Your task to perform on an android device: Search for macbook pro on target, select the first entry, and add it to the cart. Image 0: 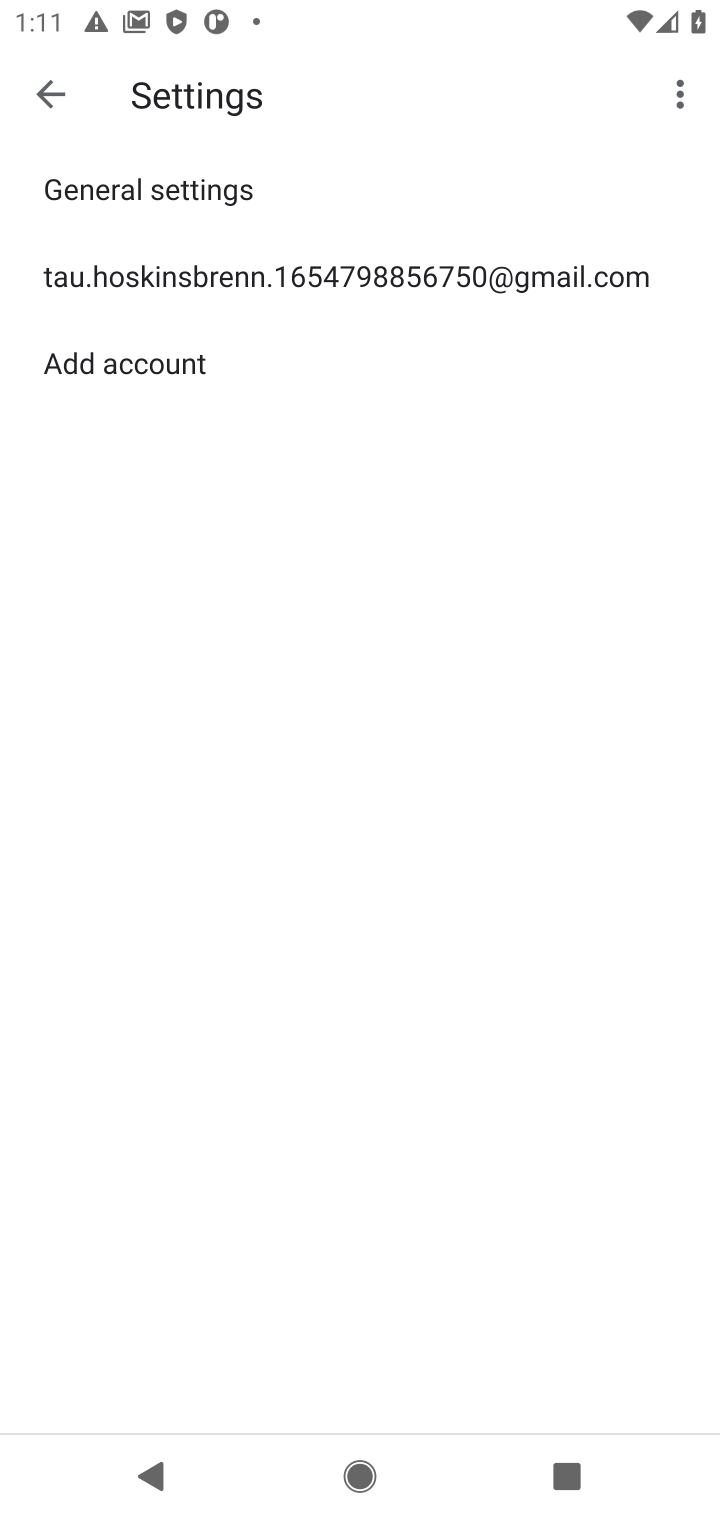
Step 0: press home button
Your task to perform on an android device: Search for macbook pro on target, select the first entry, and add it to the cart. Image 1: 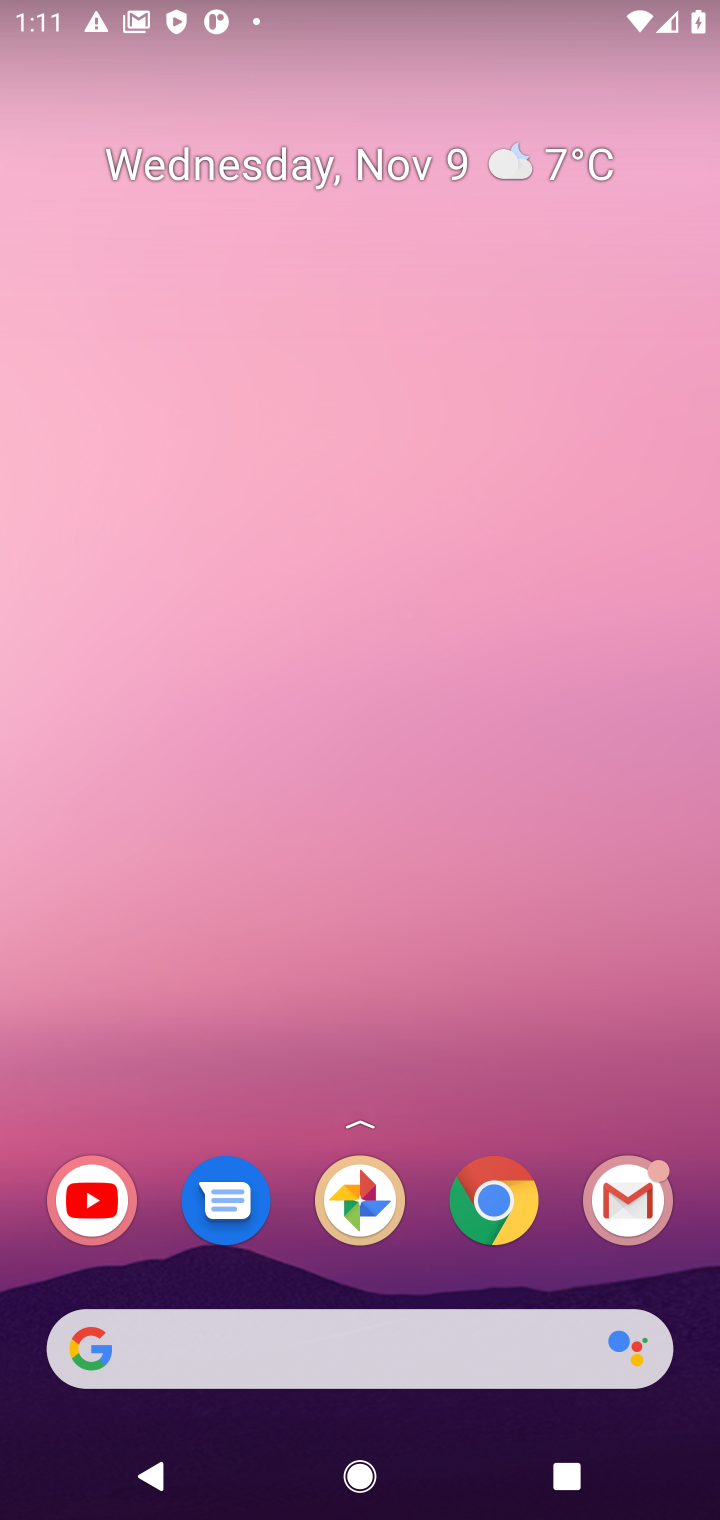
Step 1: click (273, 1333)
Your task to perform on an android device: Search for macbook pro on target, select the first entry, and add it to the cart. Image 2: 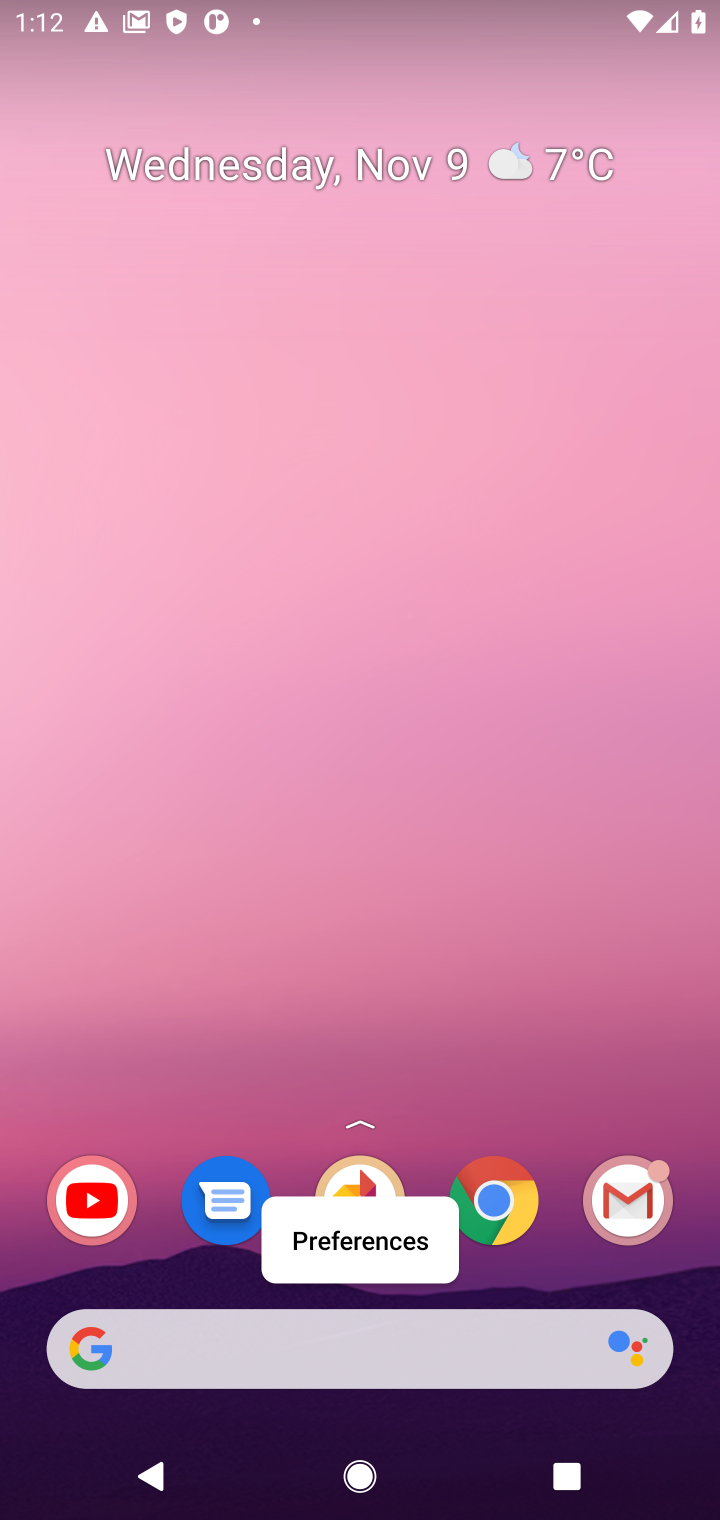
Step 2: click (328, 1356)
Your task to perform on an android device: Search for macbook pro on target, select the first entry, and add it to the cart. Image 3: 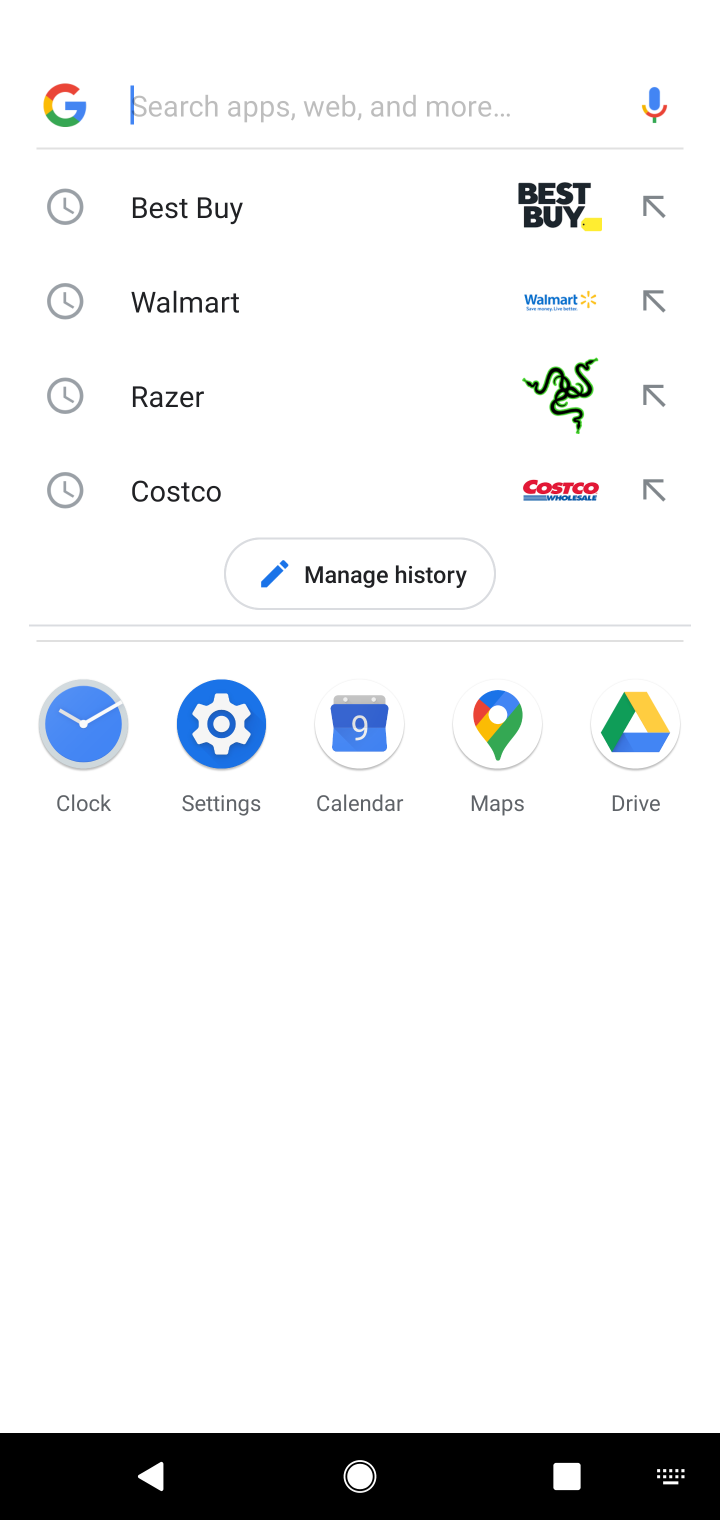
Step 3: type "target"
Your task to perform on an android device: Search for macbook pro on target, select the first entry, and add it to the cart. Image 4: 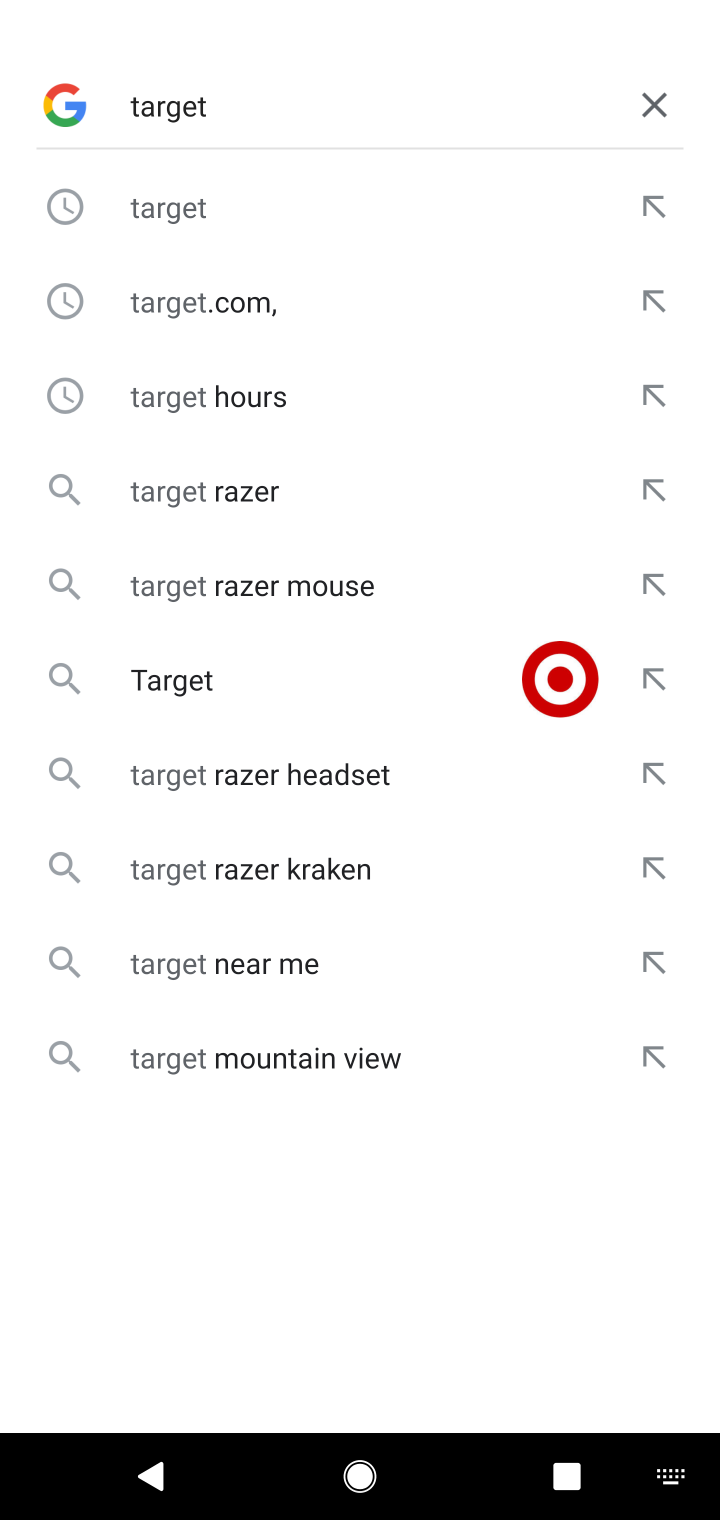
Step 4: click (406, 676)
Your task to perform on an android device: Search for macbook pro on target, select the first entry, and add it to the cart. Image 5: 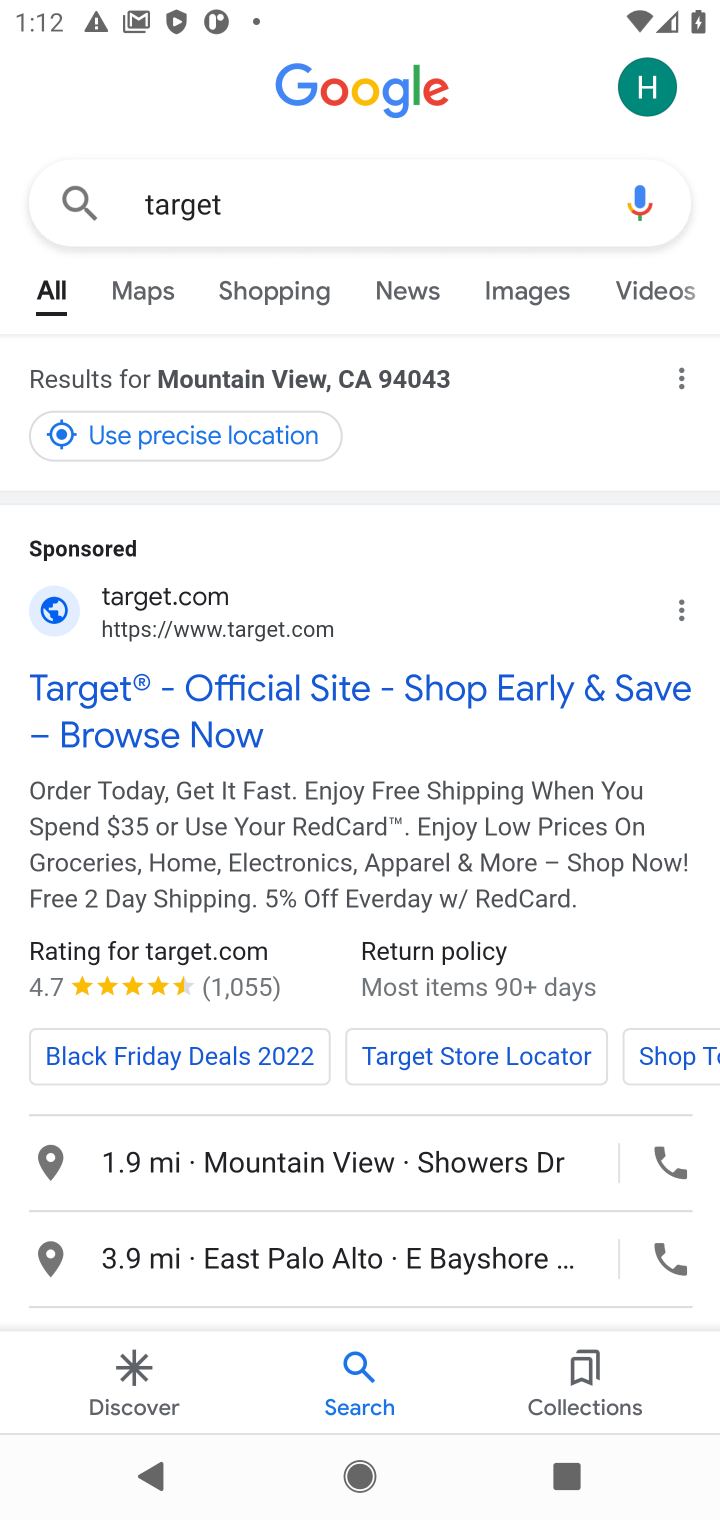
Step 5: click (285, 706)
Your task to perform on an android device: Search for macbook pro on target, select the first entry, and add it to the cart. Image 6: 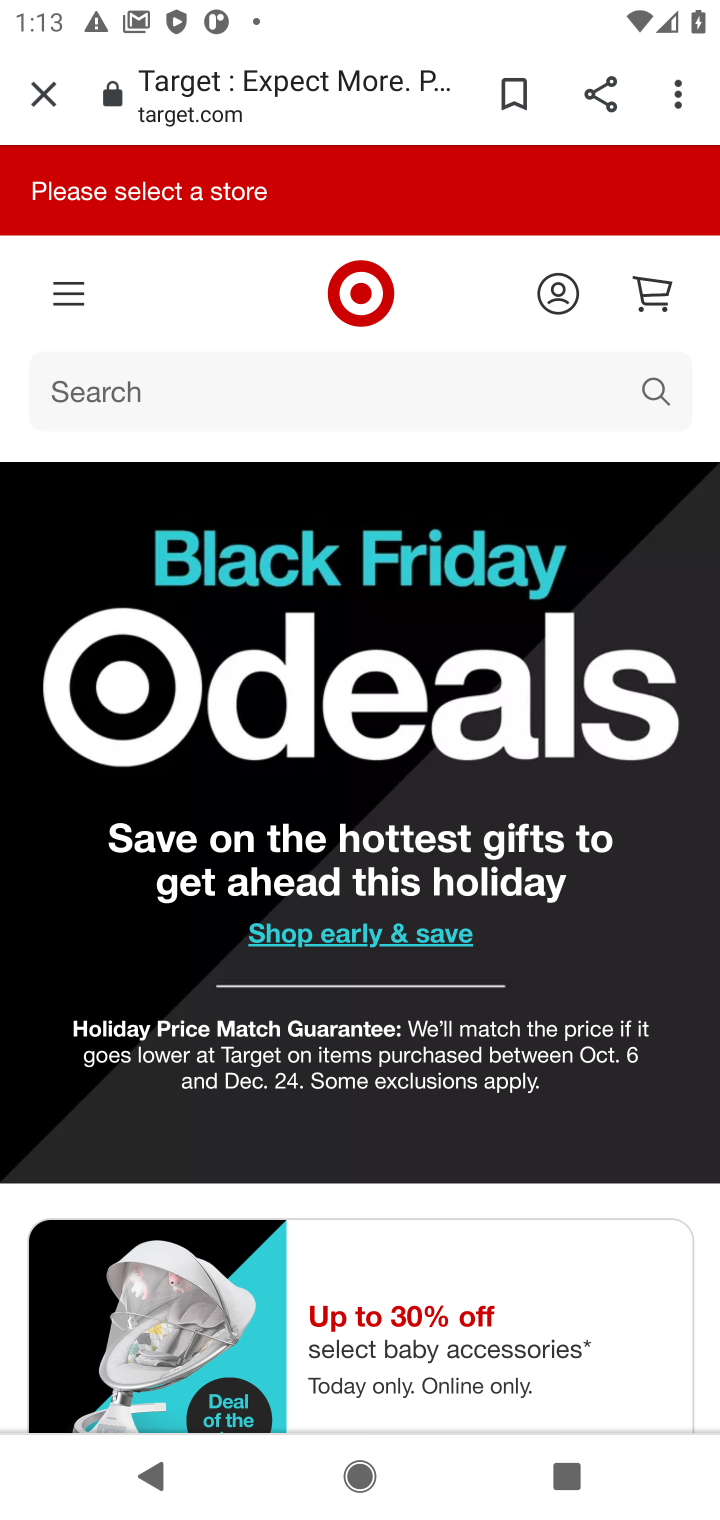
Step 6: task complete